Your task to perform on an android device: open a bookmark in the chrome app Image 0: 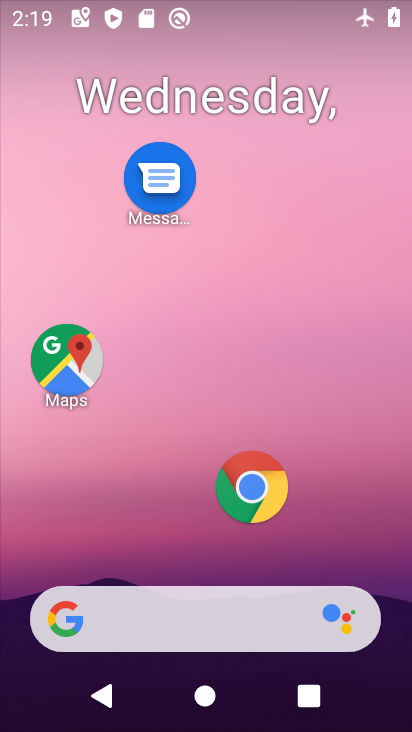
Step 0: drag from (206, 568) to (206, 88)
Your task to perform on an android device: open a bookmark in the chrome app Image 1: 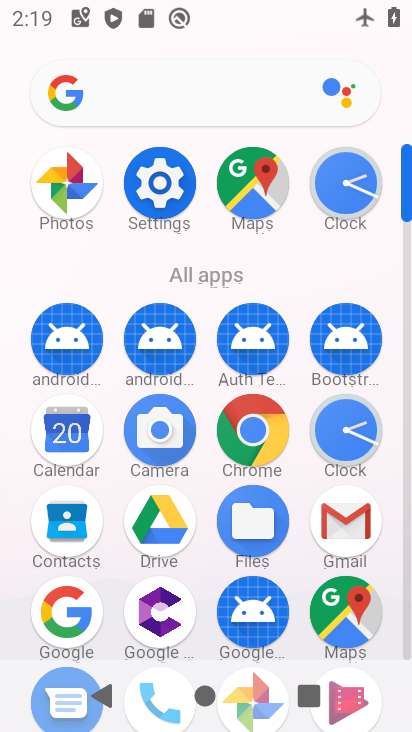
Step 1: click (246, 410)
Your task to perform on an android device: open a bookmark in the chrome app Image 2: 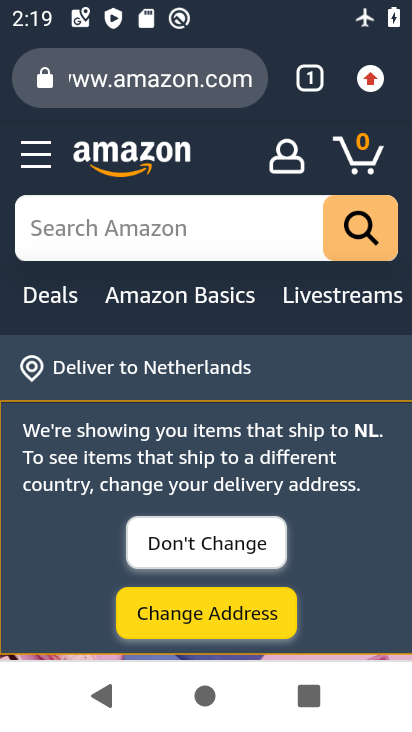
Step 2: click (372, 77)
Your task to perform on an android device: open a bookmark in the chrome app Image 3: 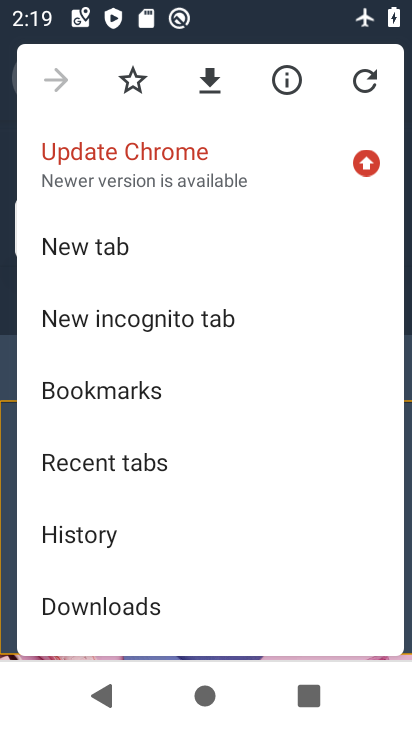
Step 3: drag from (197, 531) to (236, 311)
Your task to perform on an android device: open a bookmark in the chrome app Image 4: 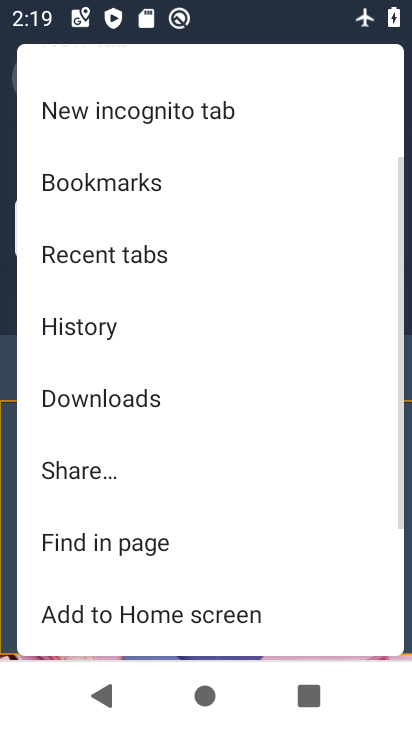
Step 4: click (157, 189)
Your task to perform on an android device: open a bookmark in the chrome app Image 5: 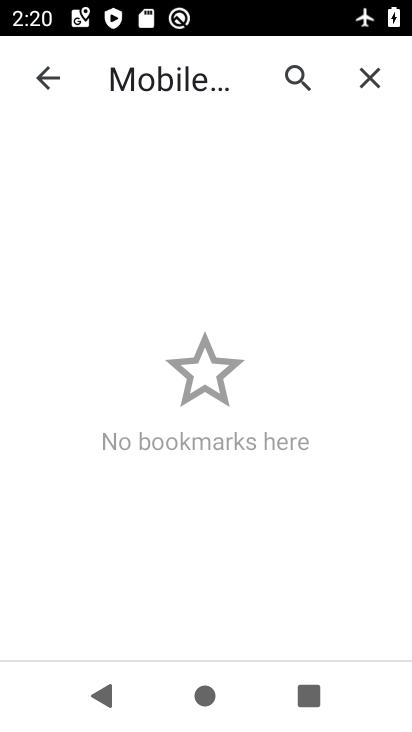
Step 5: task complete